Your task to perform on an android device: check android version Image 0: 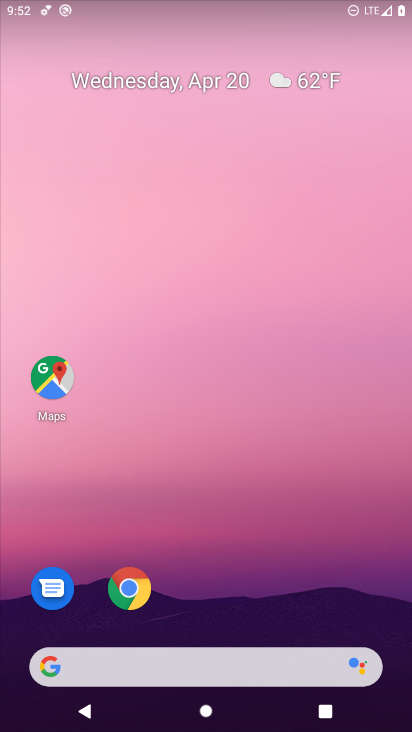
Step 0: drag from (231, 622) to (267, 27)
Your task to perform on an android device: check android version Image 1: 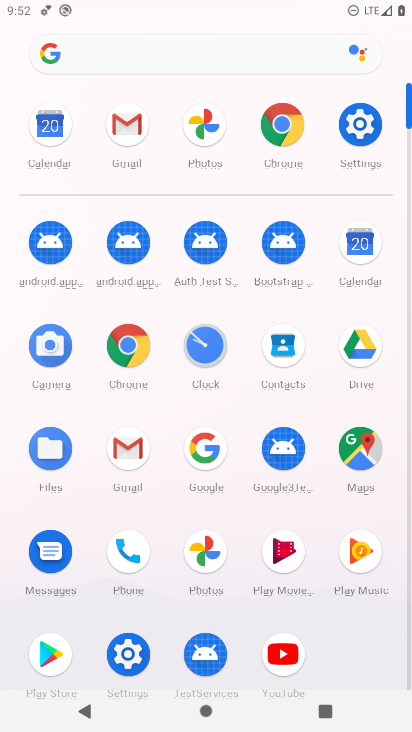
Step 1: click (357, 120)
Your task to perform on an android device: check android version Image 2: 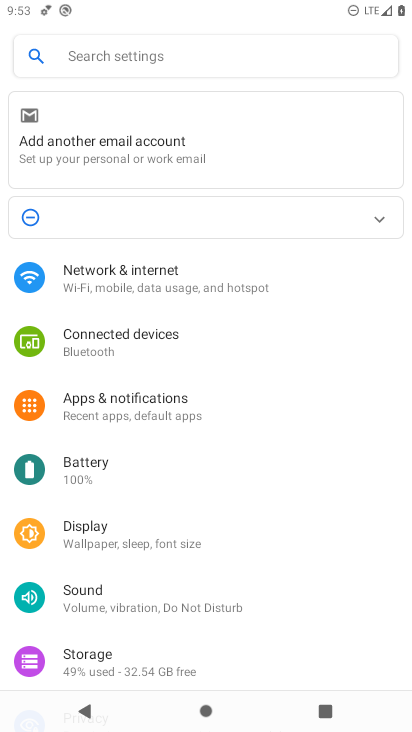
Step 2: drag from (215, 616) to (270, 55)
Your task to perform on an android device: check android version Image 3: 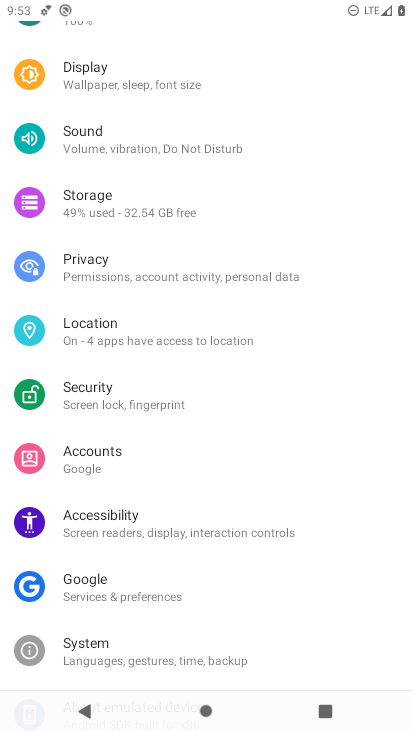
Step 3: drag from (169, 601) to (216, 131)
Your task to perform on an android device: check android version Image 4: 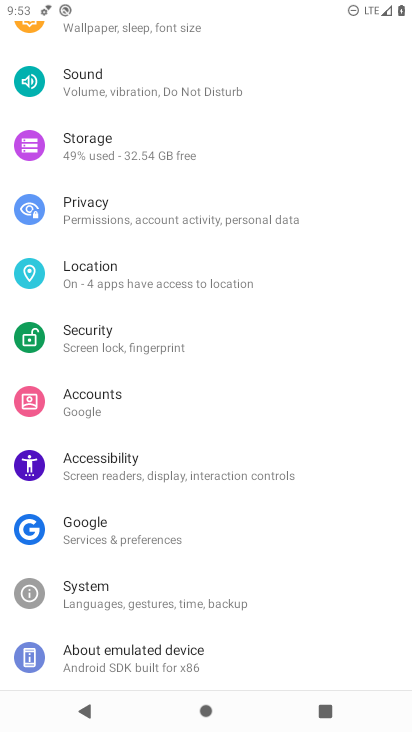
Step 4: click (140, 653)
Your task to perform on an android device: check android version Image 5: 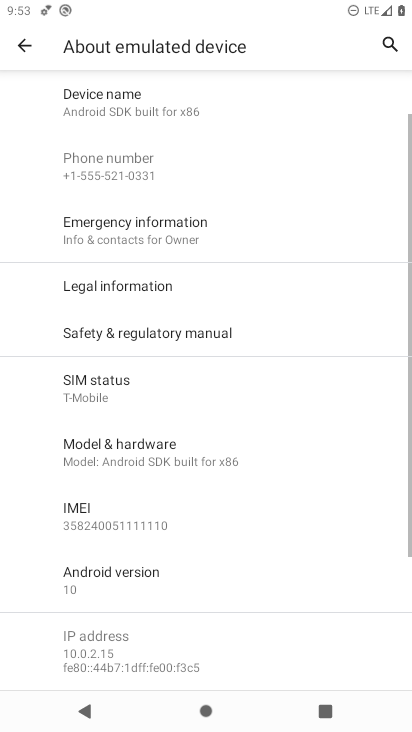
Step 5: click (158, 576)
Your task to perform on an android device: check android version Image 6: 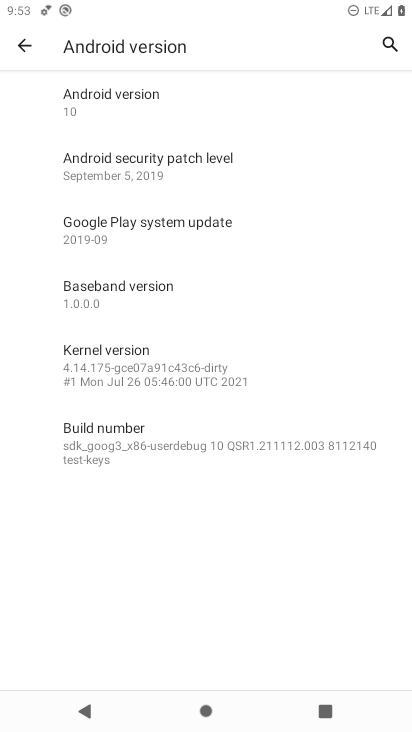
Step 6: task complete